Your task to perform on an android device: choose inbox layout in the gmail app Image 0: 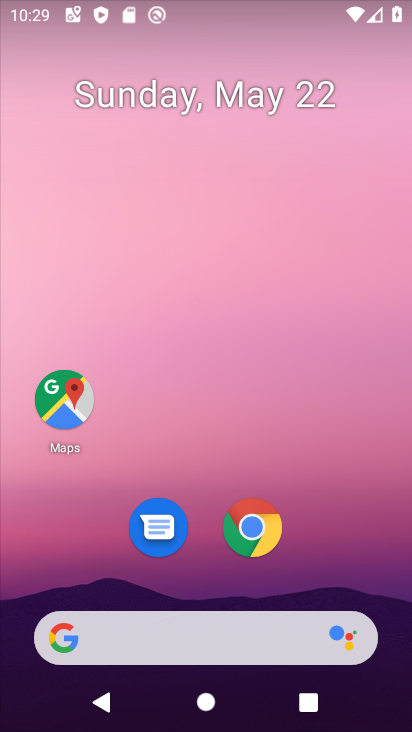
Step 0: drag from (339, 554) to (332, 26)
Your task to perform on an android device: choose inbox layout in the gmail app Image 1: 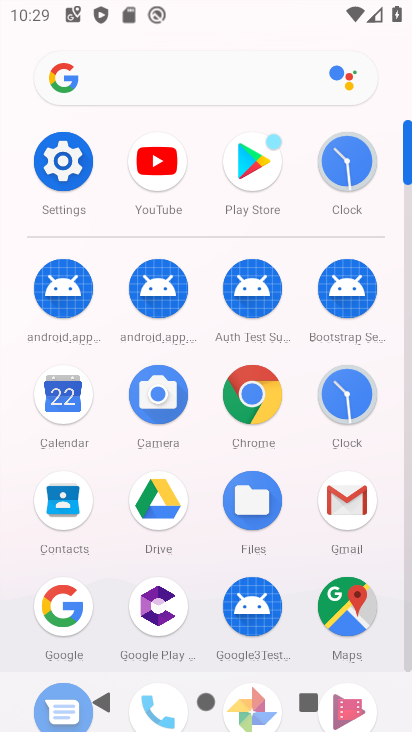
Step 1: click (345, 536)
Your task to perform on an android device: choose inbox layout in the gmail app Image 2: 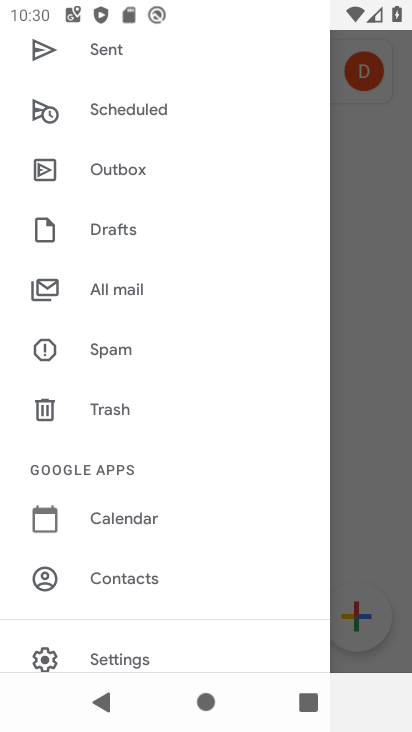
Step 2: click (141, 284)
Your task to perform on an android device: choose inbox layout in the gmail app Image 3: 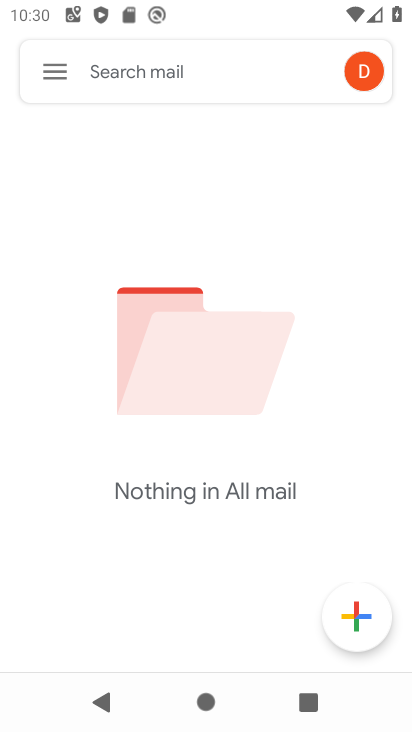
Step 3: task complete